Your task to perform on an android device: Go to Reddit.com Image 0: 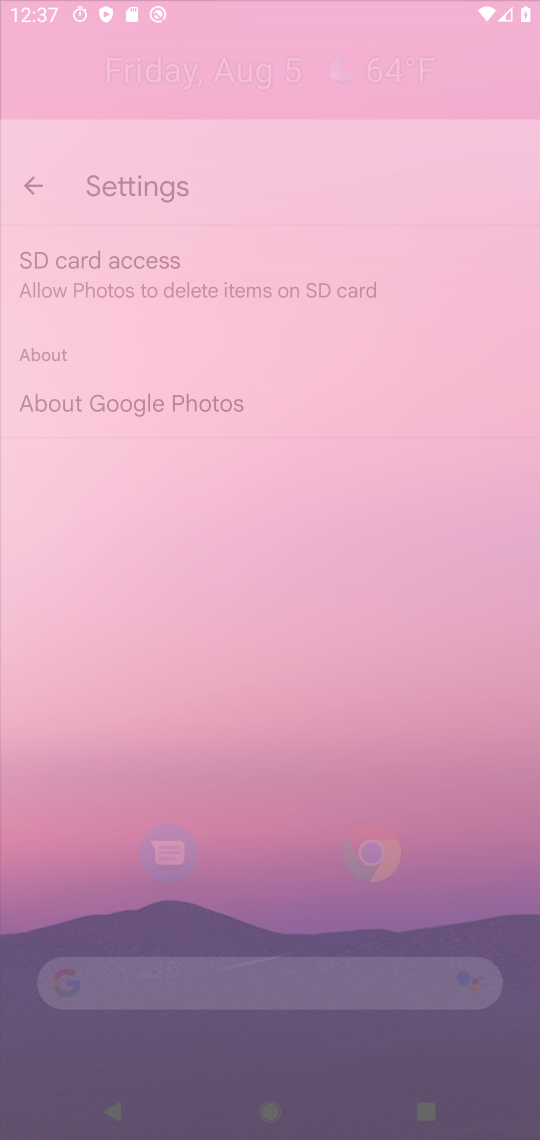
Step 0: press home button
Your task to perform on an android device: Go to Reddit.com Image 1: 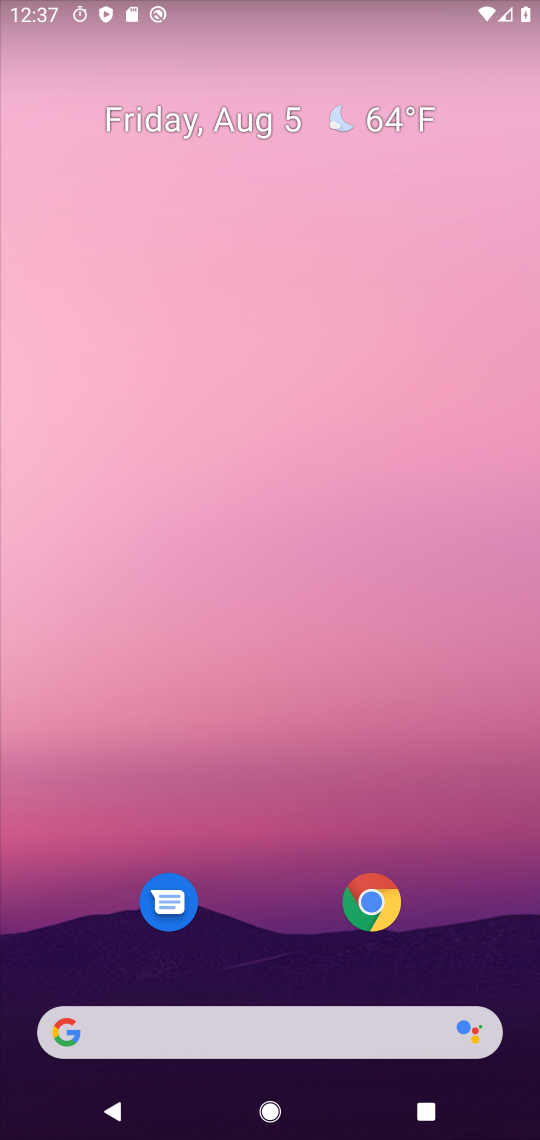
Step 1: drag from (382, 853) to (395, 238)
Your task to perform on an android device: Go to Reddit.com Image 2: 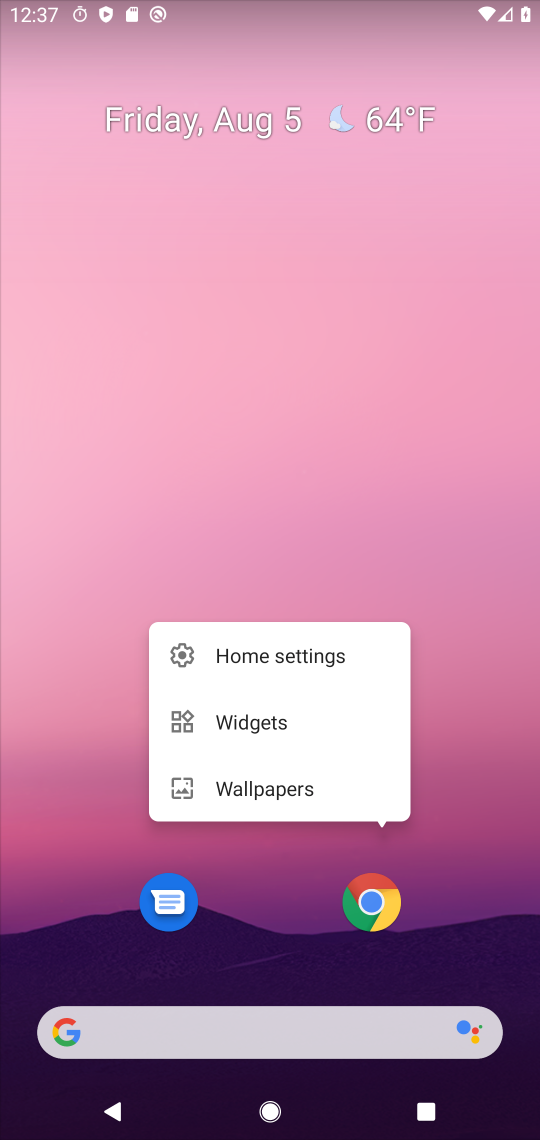
Step 2: click (364, 266)
Your task to perform on an android device: Go to Reddit.com Image 3: 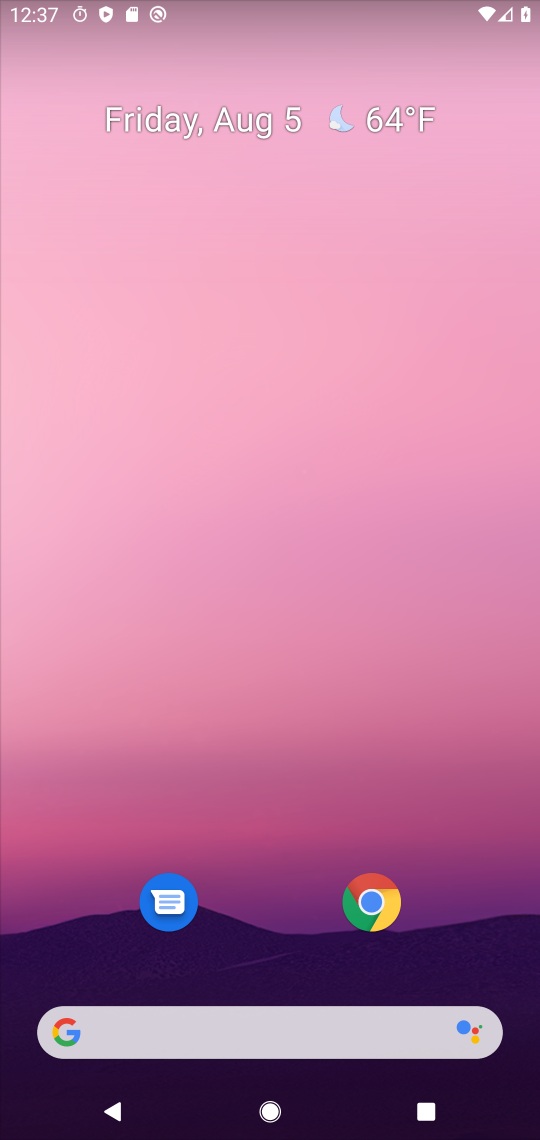
Step 3: drag from (263, 1000) to (378, 62)
Your task to perform on an android device: Go to Reddit.com Image 4: 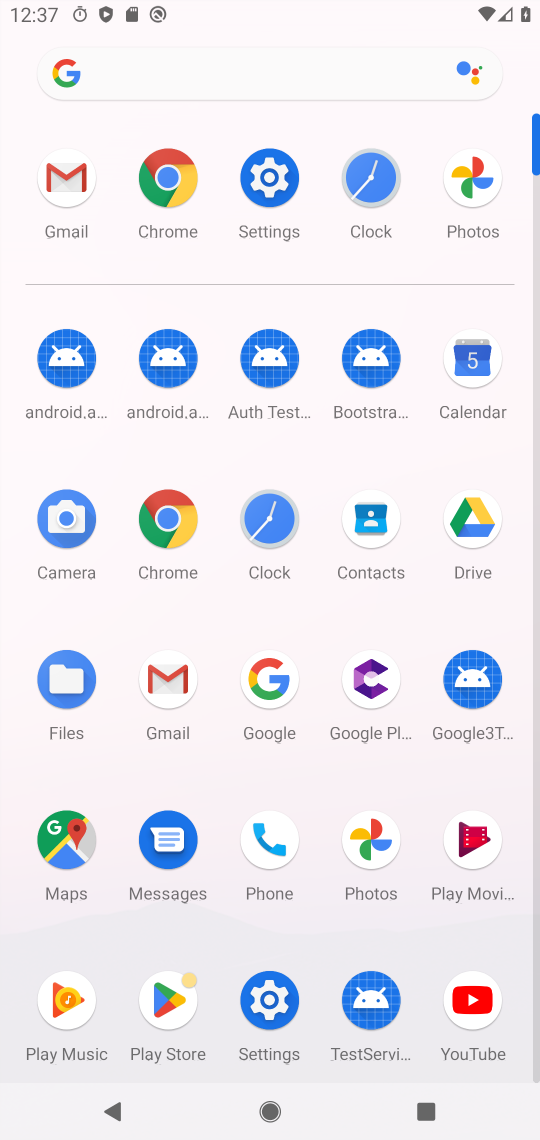
Step 4: click (164, 188)
Your task to perform on an android device: Go to Reddit.com Image 5: 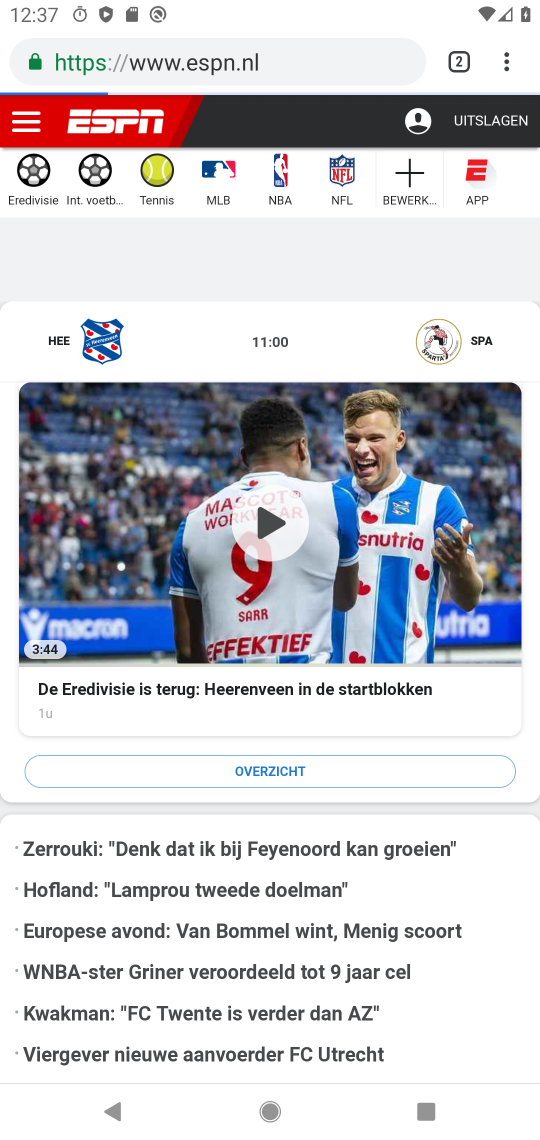
Step 5: click (282, 65)
Your task to perform on an android device: Go to Reddit.com Image 6: 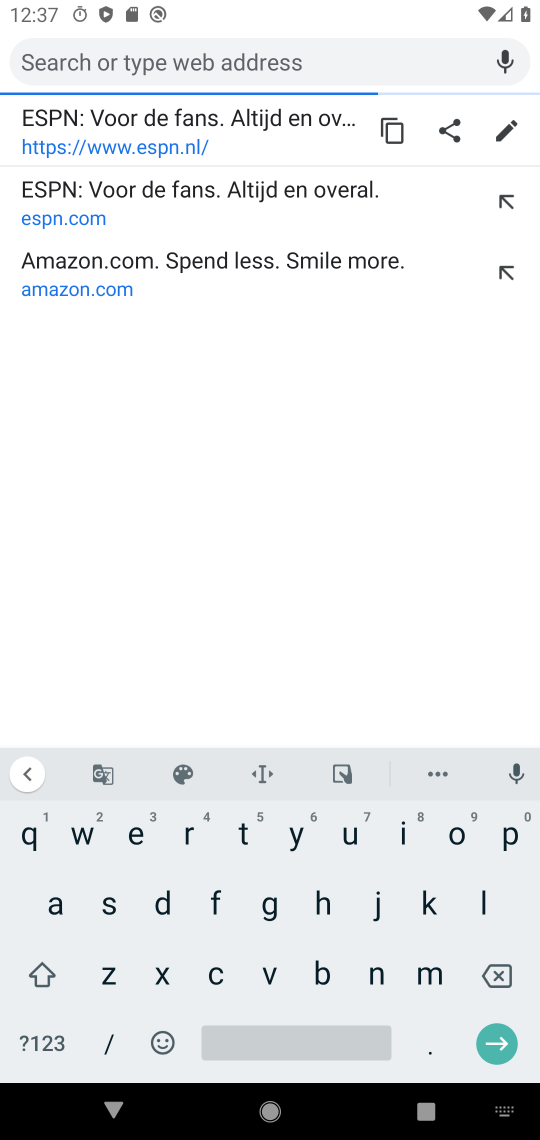
Step 6: click (185, 846)
Your task to perform on an android device: Go to Reddit.com Image 7: 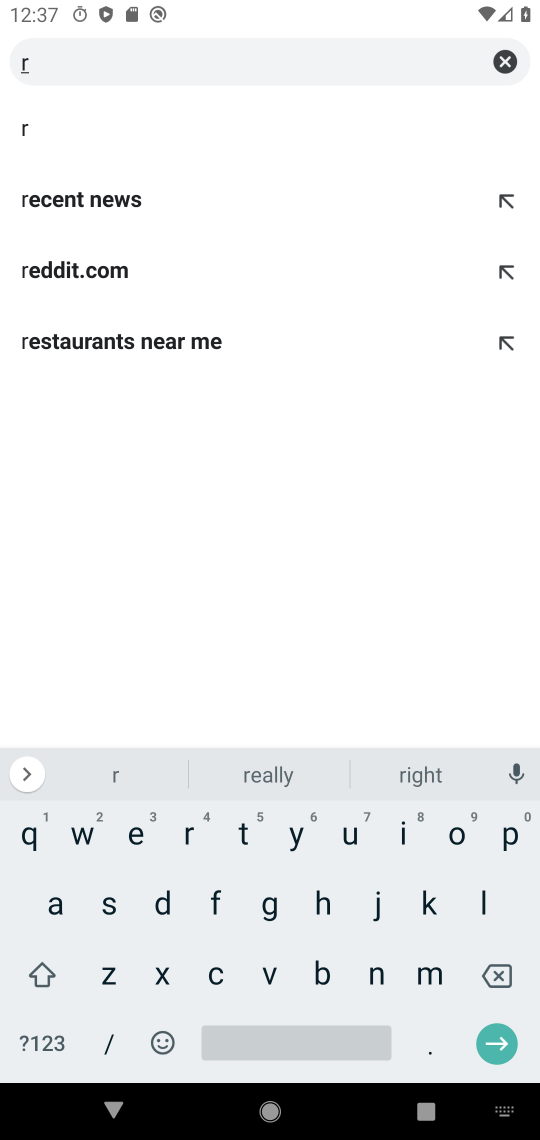
Step 7: click (120, 266)
Your task to perform on an android device: Go to Reddit.com Image 8: 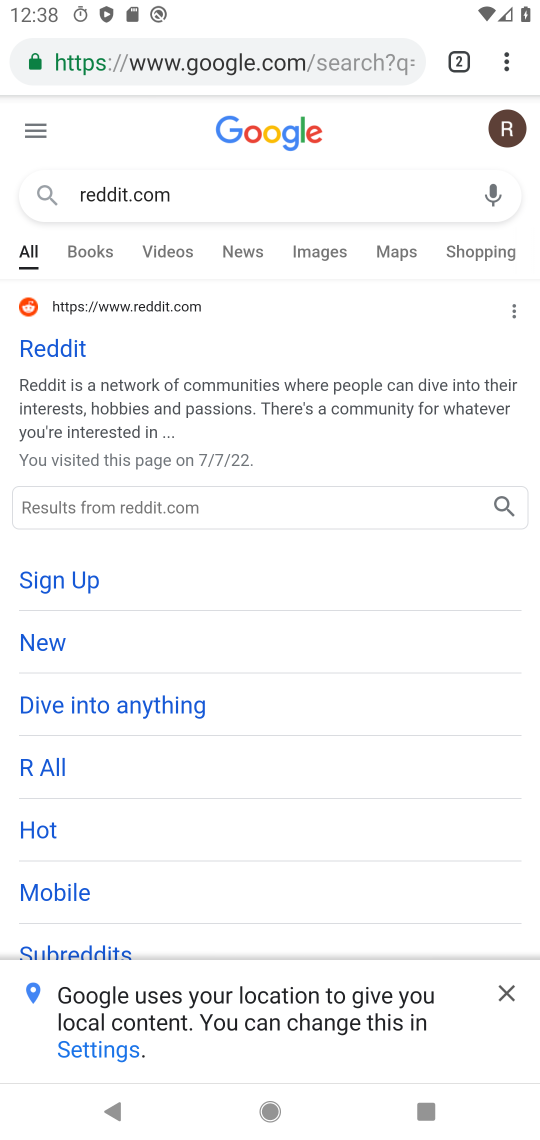
Step 8: click (45, 344)
Your task to perform on an android device: Go to Reddit.com Image 9: 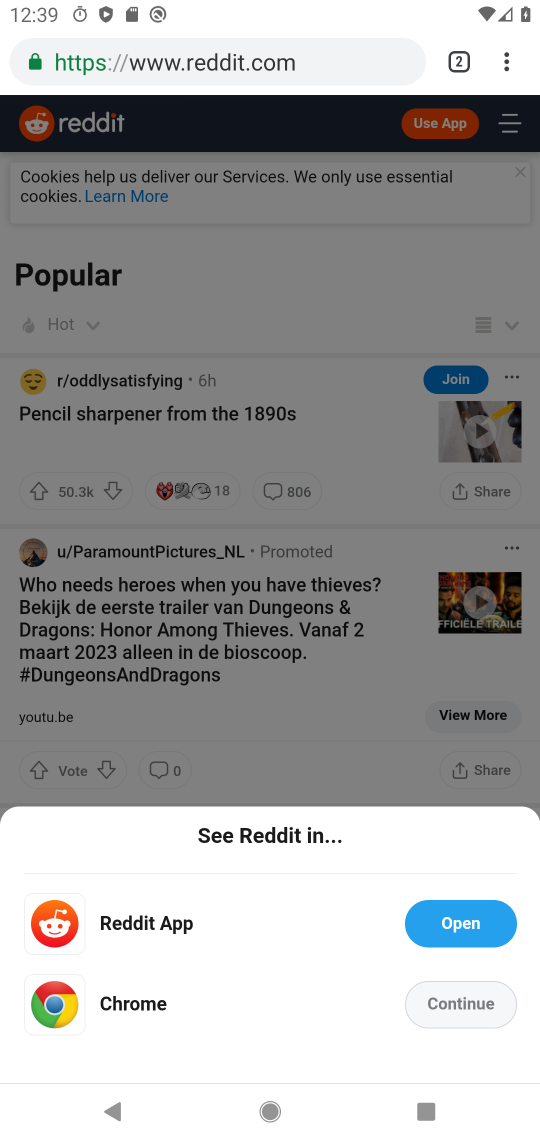
Step 9: click (432, 1005)
Your task to perform on an android device: Go to Reddit.com Image 10: 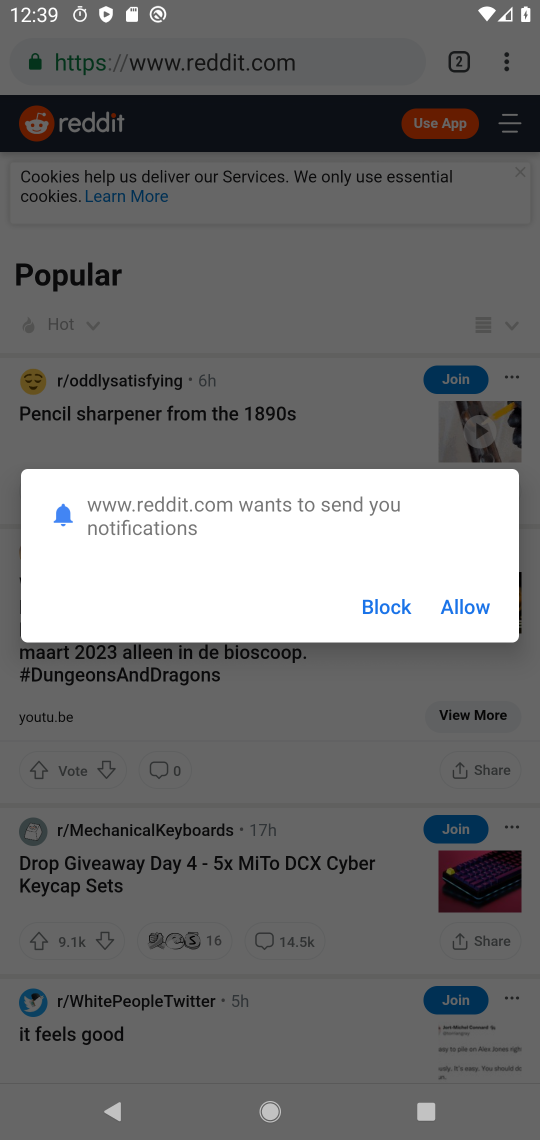
Step 10: click (377, 605)
Your task to perform on an android device: Go to Reddit.com Image 11: 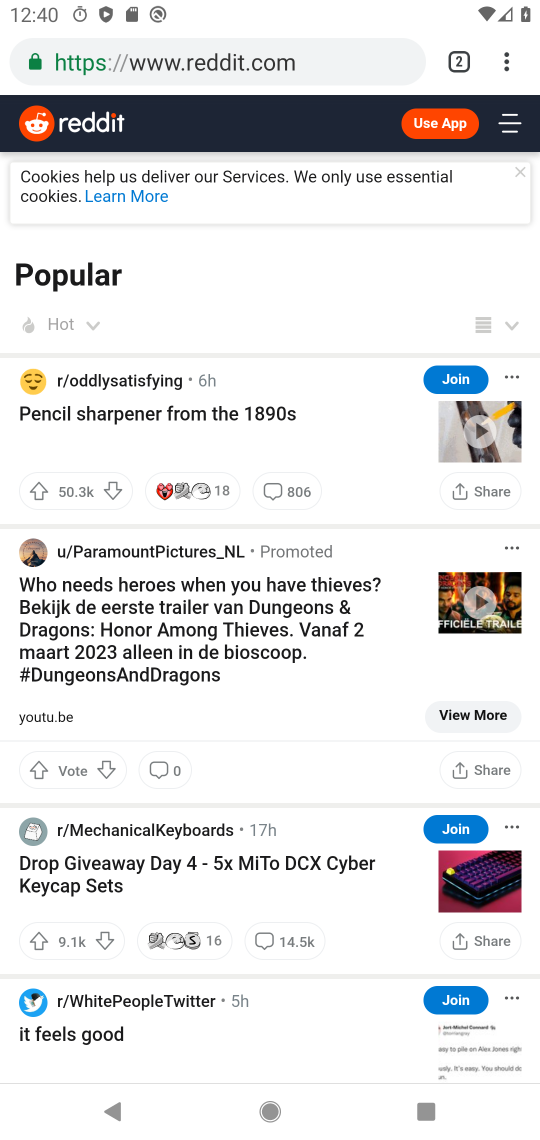
Step 11: task complete